Your task to perform on an android device: turn notification dots off Image 0: 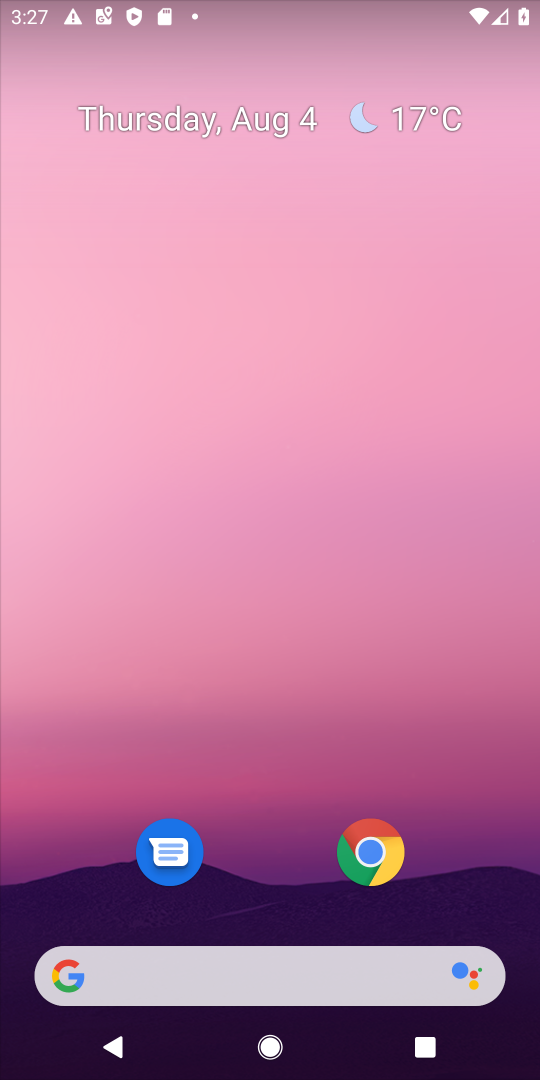
Step 0: press back button
Your task to perform on an android device: turn notification dots off Image 1: 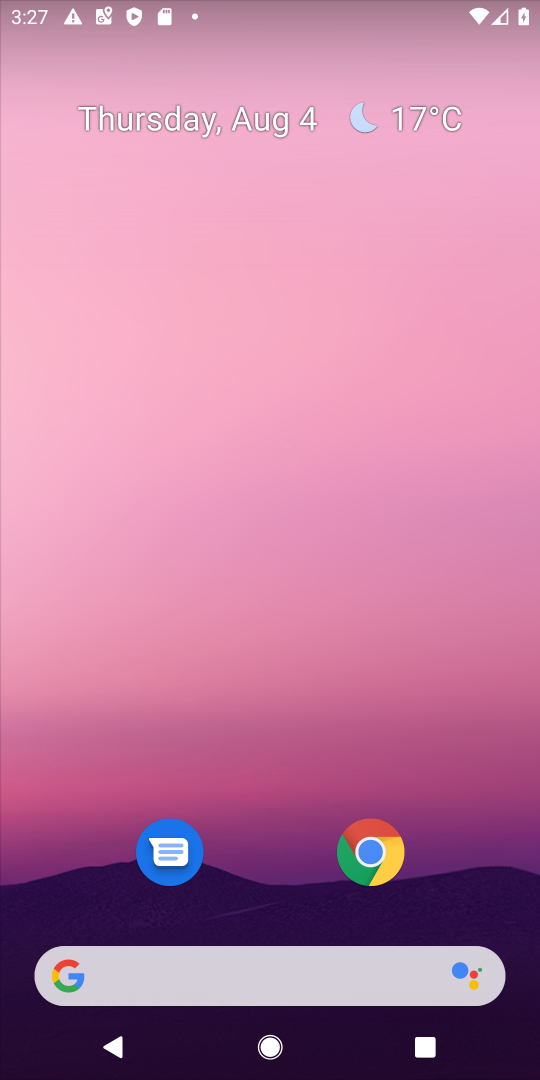
Step 1: drag from (139, 933) to (348, 87)
Your task to perform on an android device: turn notification dots off Image 2: 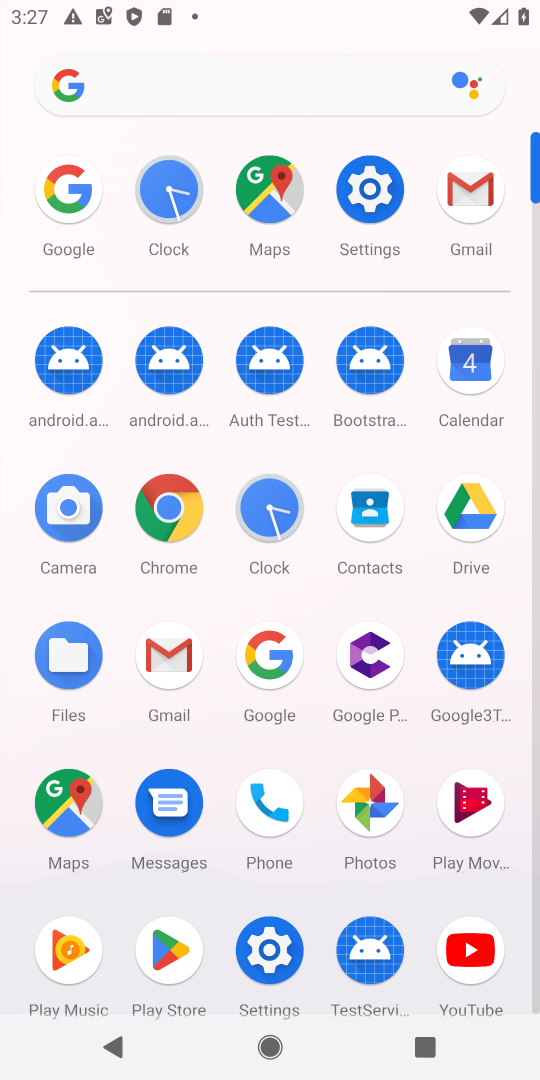
Step 2: click (387, 183)
Your task to perform on an android device: turn notification dots off Image 3: 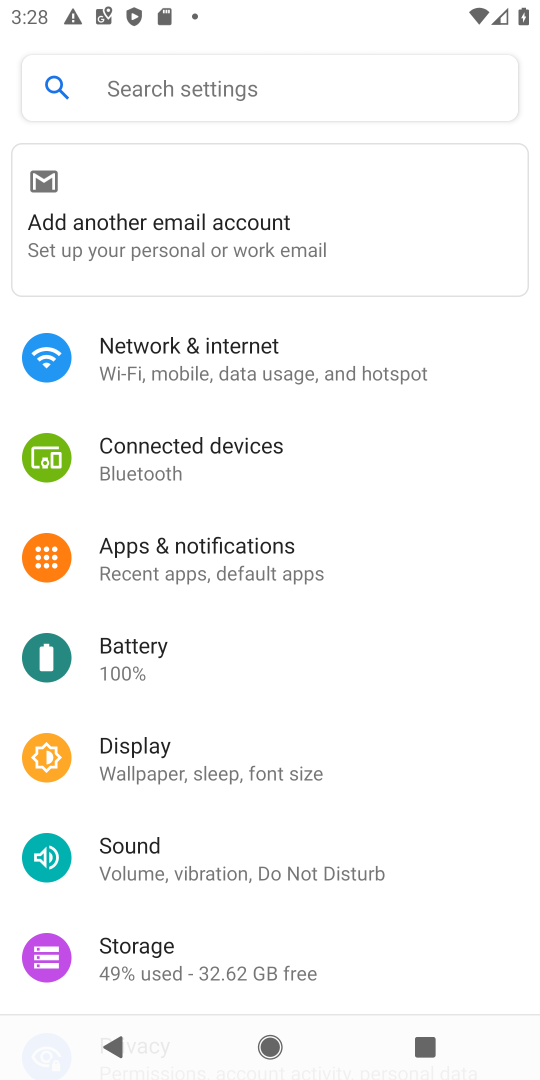
Step 3: click (218, 554)
Your task to perform on an android device: turn notification dots off Image 4: 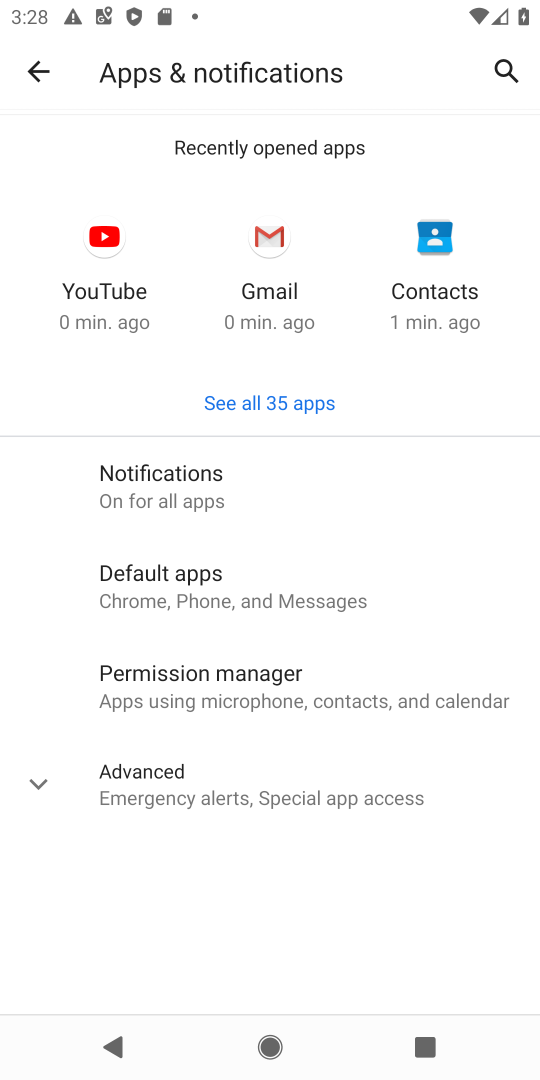
Step 4: click (136, 484)
Your task to perform on an android device: turn notification dots off Image 5: 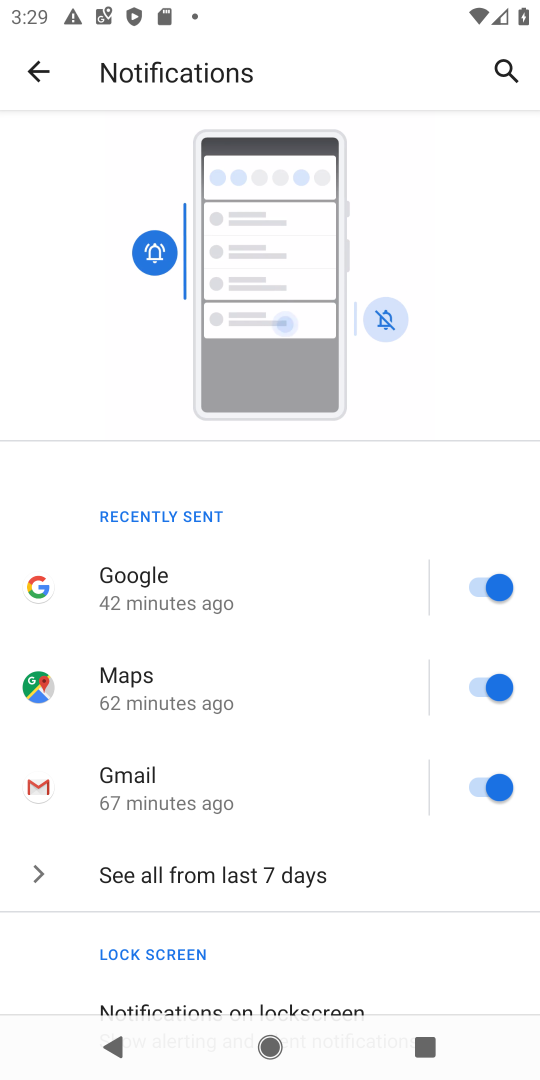
Step 5: drag from (256, 939) to (353, 83)
Your task to perform on an android device: turn notification dots off Image 6: 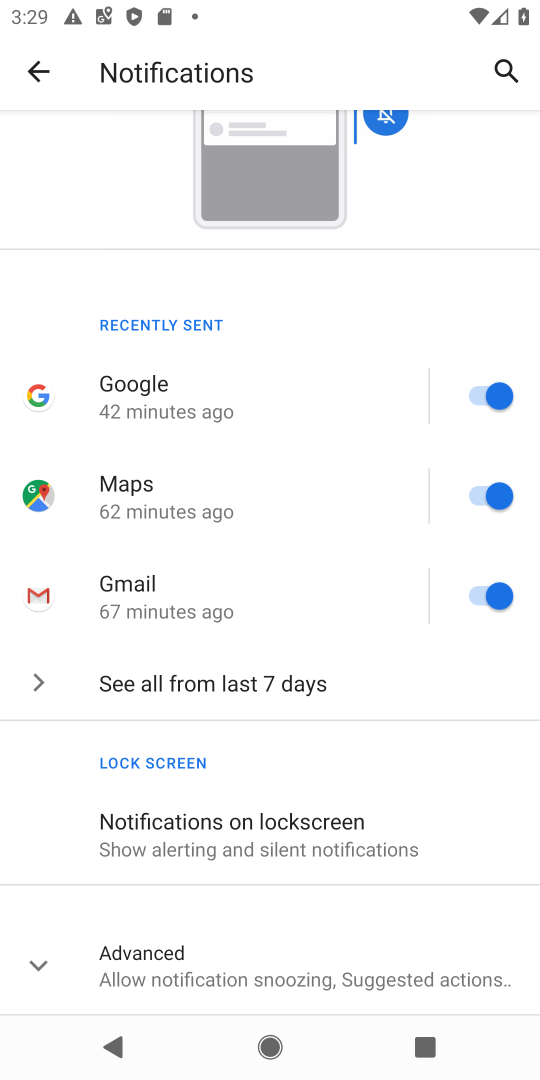
Step 6: click (253, 959)
Your task to perform on an android device: turn notification dots off Image 7: 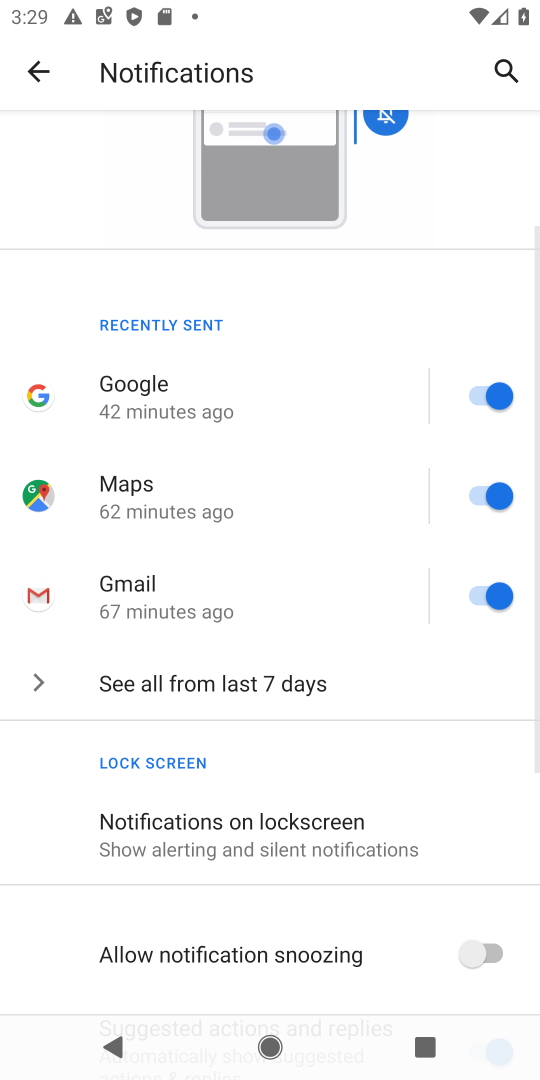
Step 7: task complete